Your task to perform on an android device: turn notification dots off Image 0: 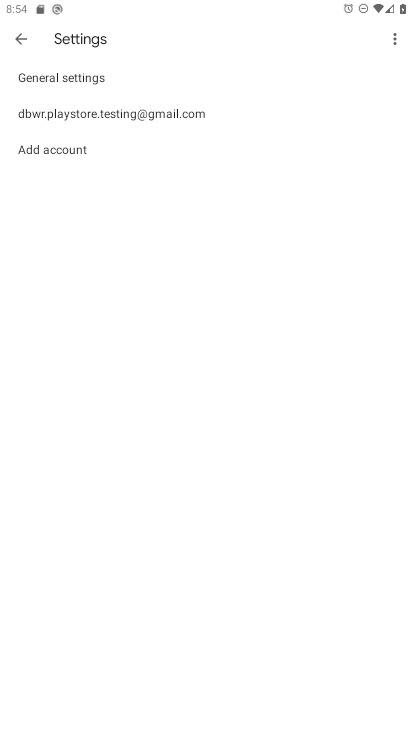
Step 0: press home button
Your task to perform on an android device: turn notification dots off Image 1: 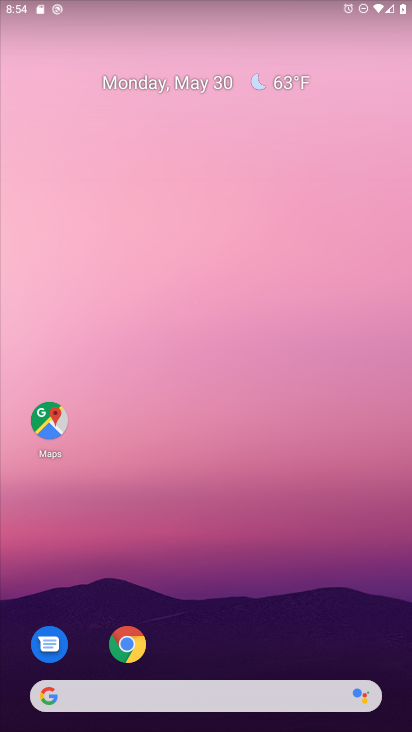
Step 1: drag from (209, 608) to (244, 36)
Your task to perform on an android device: turn notification dots off Image 2: 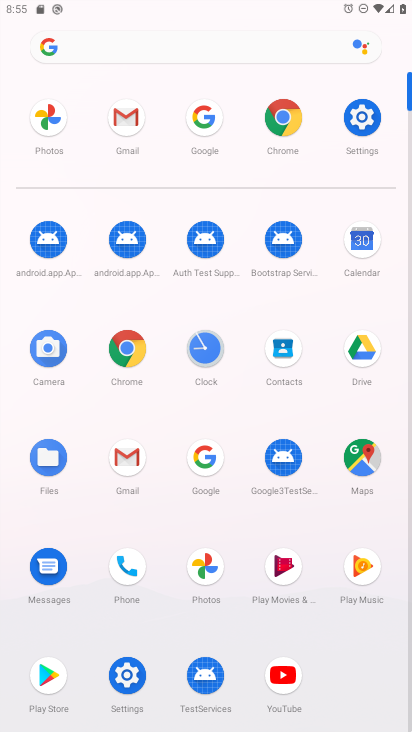
Step 2: click (371, 120)
Your task to perform on an android device: turn notification dots off Image 3: 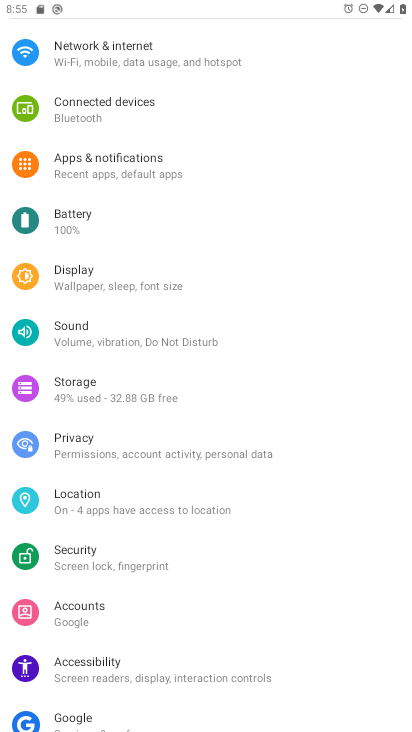
Step 3: click (130, 165)
Your task to perform on an android device: turn notification dots off Image 4: 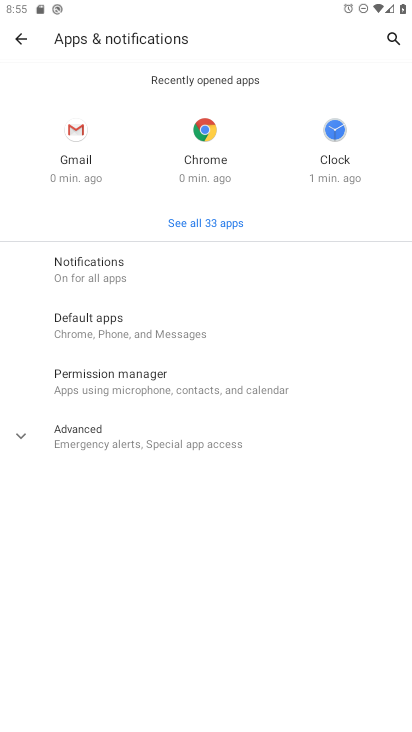
Step 4: click (123, 272)
Your task to perform on an android device: turn notification dots off Image 5: 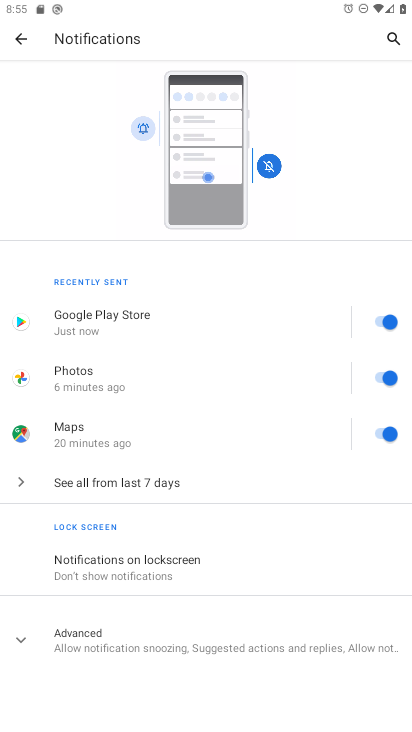
Step 5: drag from (173, 553) to (180, 305)
Your task to perform on an android device: turn notification dots off Image 6: 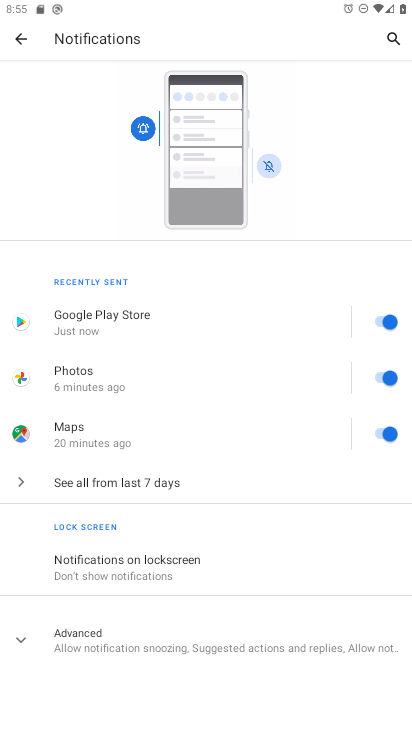
Step 6: click (128, 624)
Your task to perform on an android device: turn notification dots off Image 7: 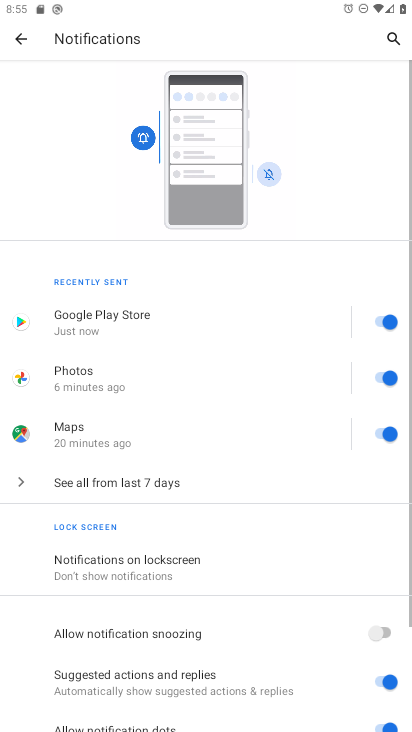
Step 7: drag from (259, 579) to (251, 246)
Your task to perform on an android device: turn notification dots off Image 8: 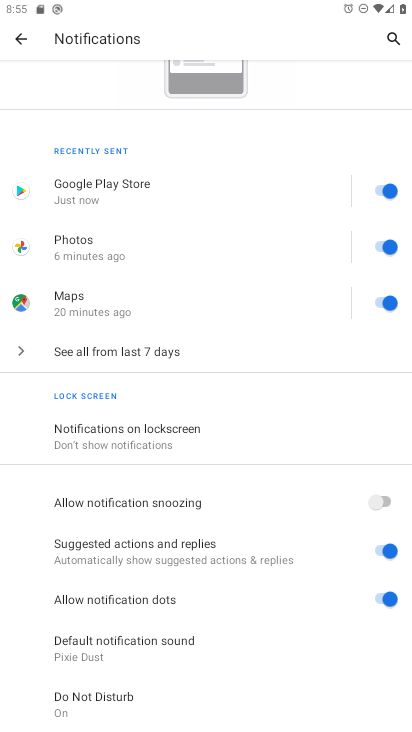
Step 8: click (385, 597)
Your task to perform on an android device: turn notification dots off Image 9: 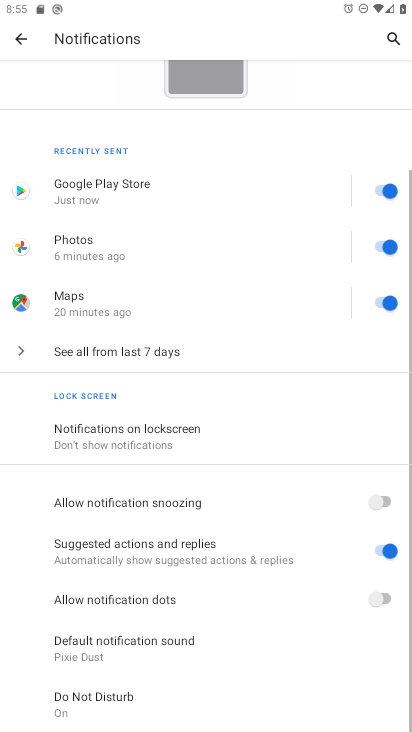
Step 9: task complete